Your task to perform on an android device: Open Google Chrome Image 0: 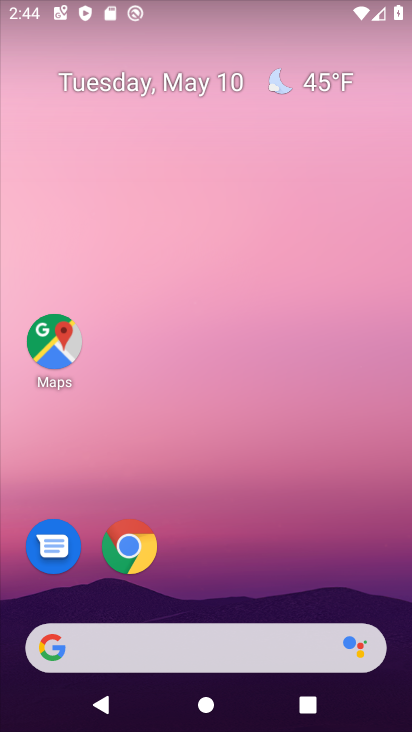
Step 0: drag from (237, 312) to (207, 1)
Your task to perform on an android device: Open Google Chrome Image 1: 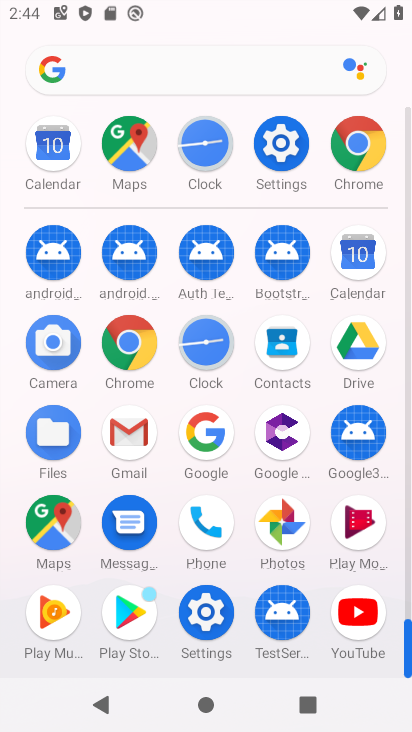
Step 1: click (356, 133)
Your task to perform on an android device: Open Google Chrome Image 2: 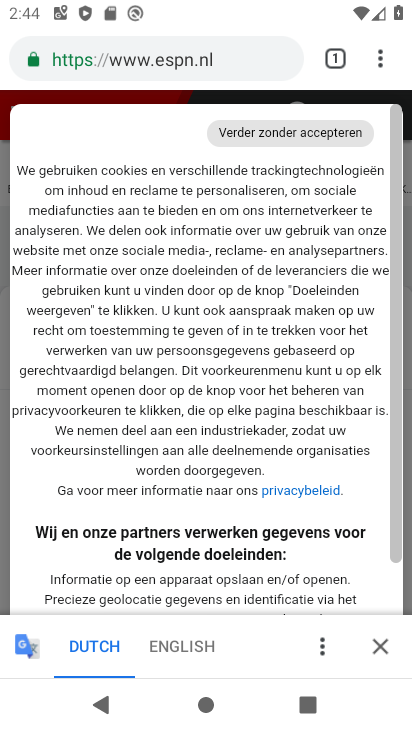
Step 2: task complete